Your task to perform on an android device: Open sound settings Image 0: 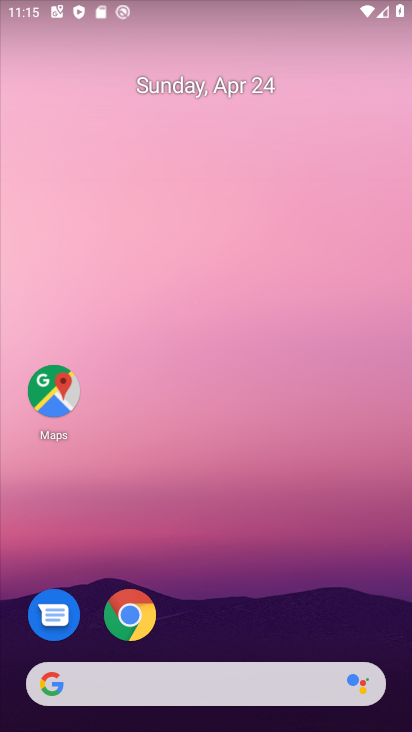
Step 0: drag from (258, 583) to (265, 162)
Your task to perform on an android device: Open sound settings Image 1: 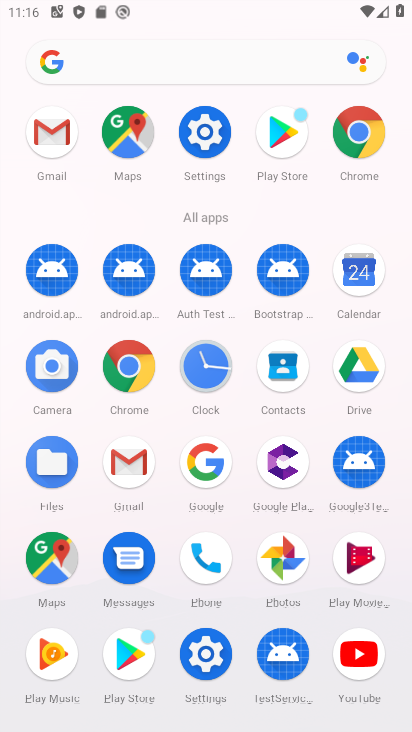
Step 1: click (215, 170)
Your task to perform on an android device: Open sound settings Image 2: 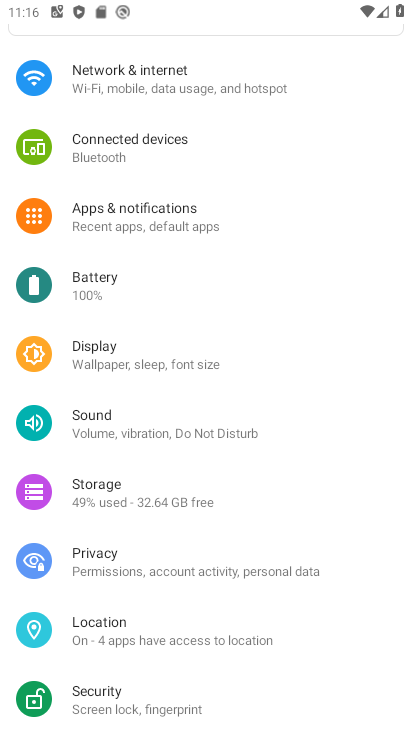
Step 2: drag from (165, 582) to (180, 486)
Your task to perform on an android device: Open sound settings Image 3: 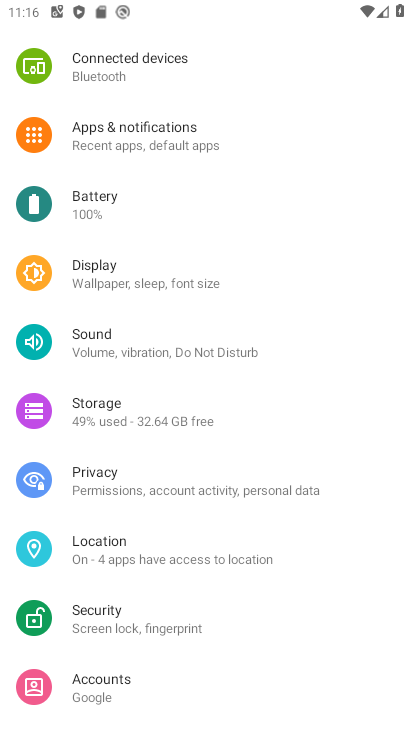
Step 3: click (185, 325)
Your task to perform on an android device: Open sound settings Image 4: 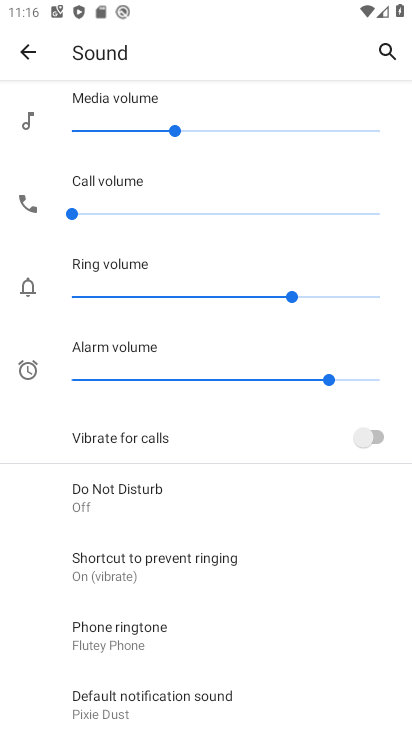
Step 4: task complete